Your task to perform on an android device: open the mobile data screen to see how much data has been used Image 0: 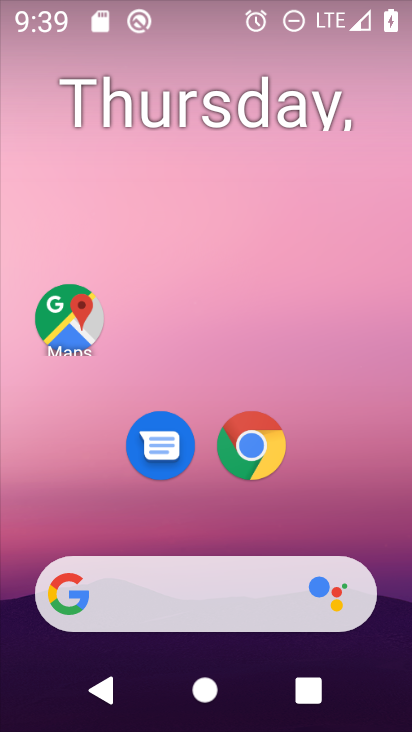
Step 0: click (392, 627)
Your task to perform on an android device: open the mobile data screen to see how much data has been used Image 1: 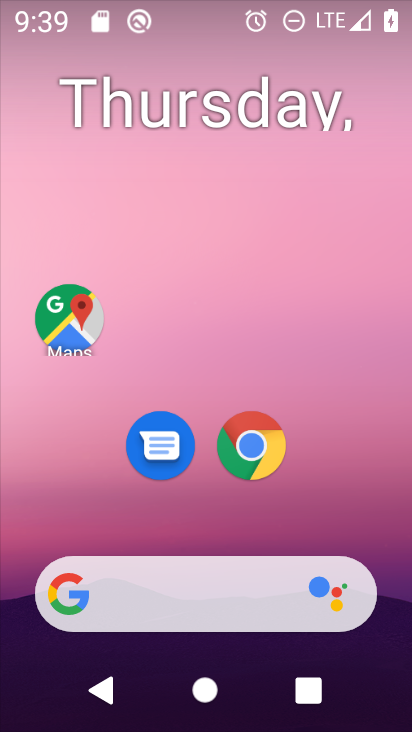
Step 1: drag from (392, 469) to (321, 124)
Your task to perform on an android device: open the mobile data screen to see how much data has been used Image 2: 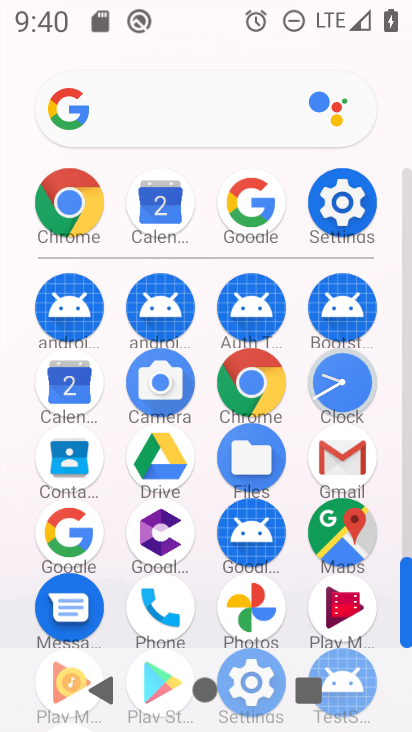
Step 2: click (329, 227)
Your task to perform on an android device: open the mobile data screen to see how much data has been used Image 3: 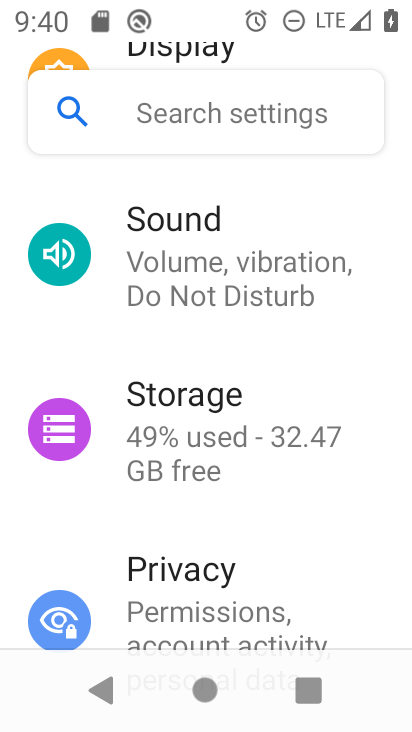
Step 3: drag from (255, 259) to (277, 696)
Your task to perform on an android device: open the mobile data screen to see how much data has been used Image 4: 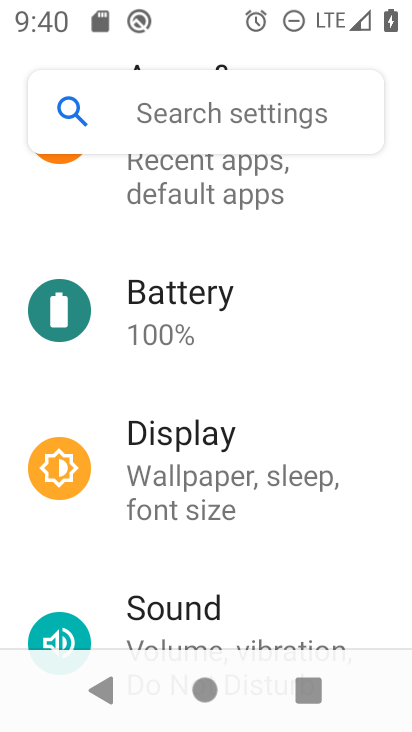
Step 4: drag from (243, 258) to (197, 551)
Your task to perform on an android device: open the mobile data screen to see how much data has been used Image 5: 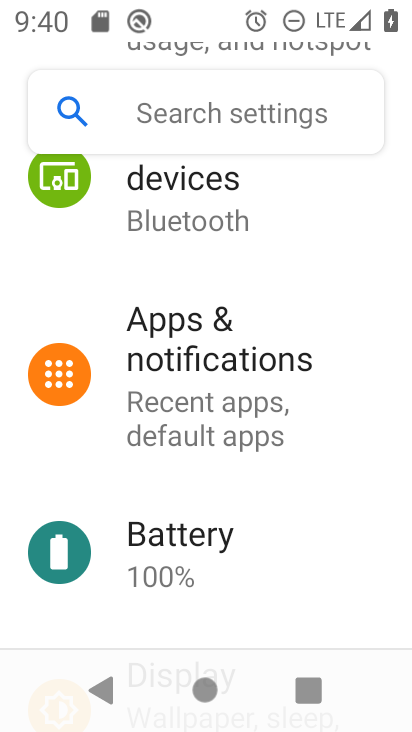
Step 5: drag from (190, 262) to (214, 623)
Your task to perform on an android device: open the mobile data screen to see how much data has been used Image 6: 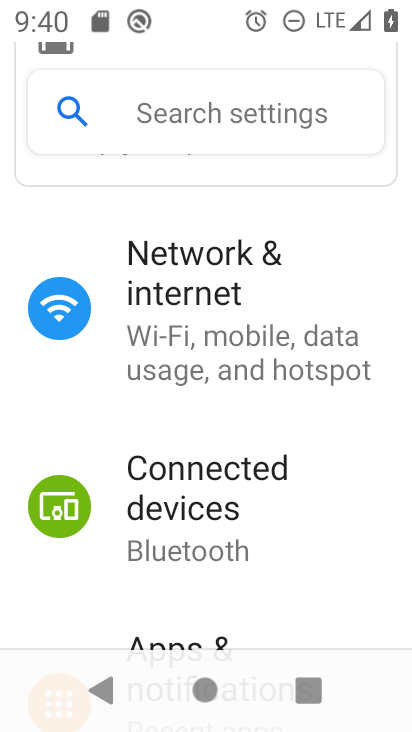
Step 6: click (184, 304)
Your task to perform on an android device: open the mobile data screen to see how much data has been used Image 7: 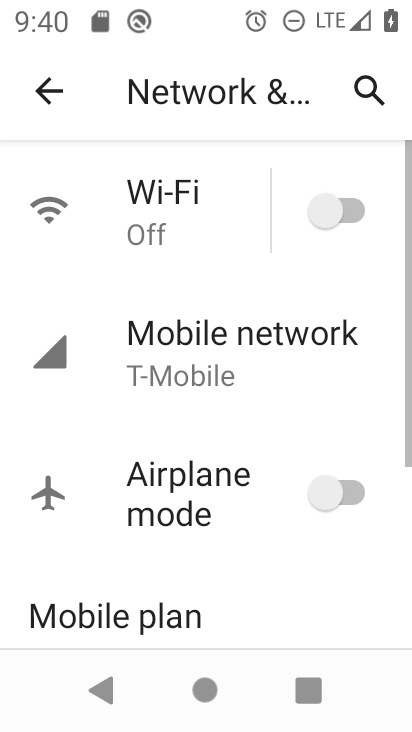
Step 7: click (242, 352)
Your task to perform on an android device: open the mobile data screen to see how much data has been used Image 8: 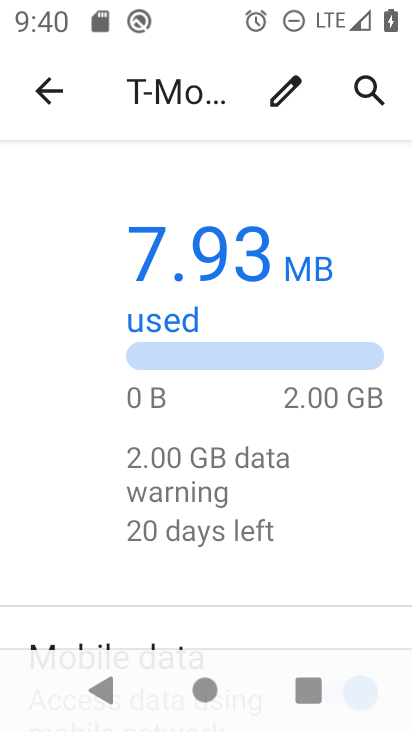
Step 8: drag from (204, 604) to (203, 306)
Your task to perform on an android device: open the mobile data screen to see how much data has been used Image 9: 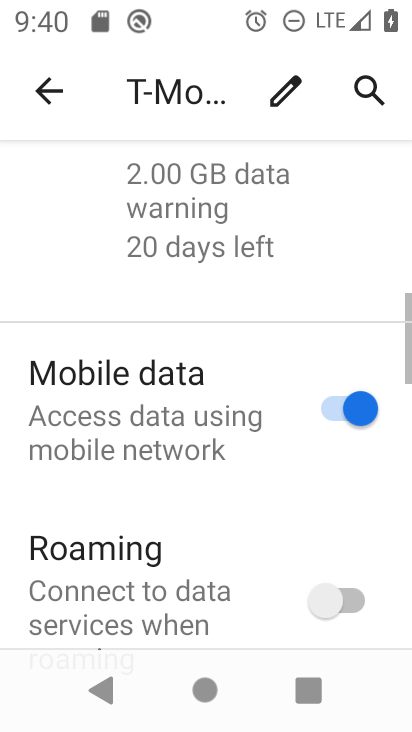
Step 9: click (203, 180)
Your task to perform on an android device: open the mobile data screen to see how much data has been used Image 10: 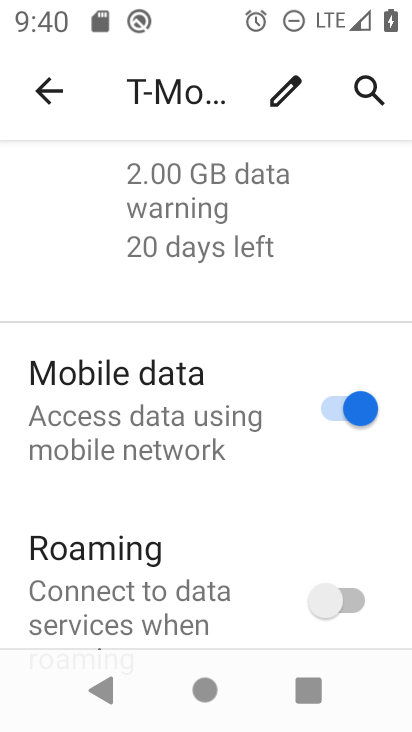
Step 10: drag from (202, 569) to (254, 169)
Your task to perform on an android device: open the mobile data screen to see how much data has been used Image 11: 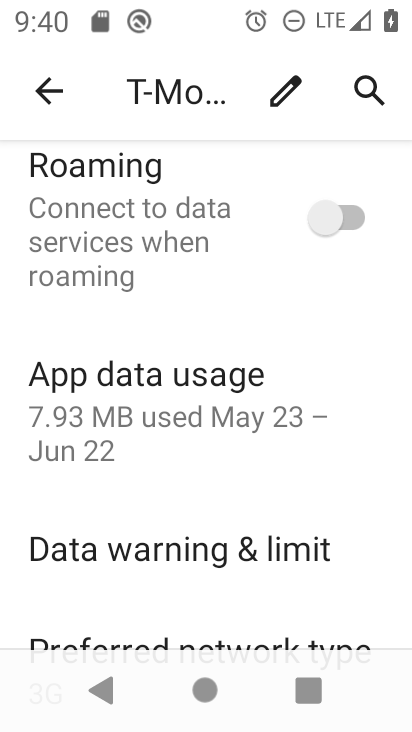
Step 11: click (182, 393)
Your task to perform on an android device: open the mobile data screen to see how much data has been used Image 12: 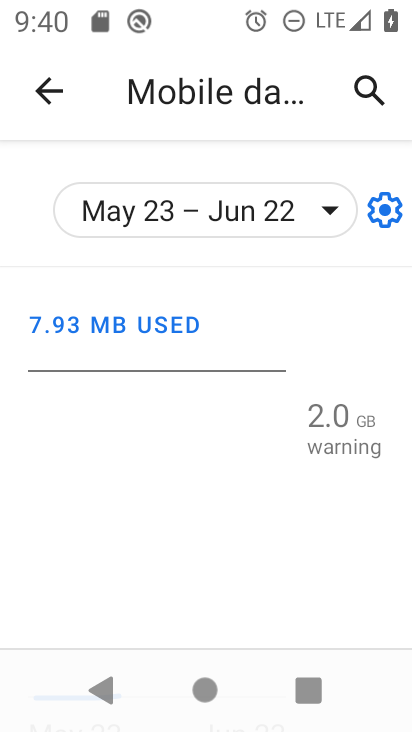
Step 12: task complete